Your task to perform on an android device: turn off smart reply in the gmail app Image 0: 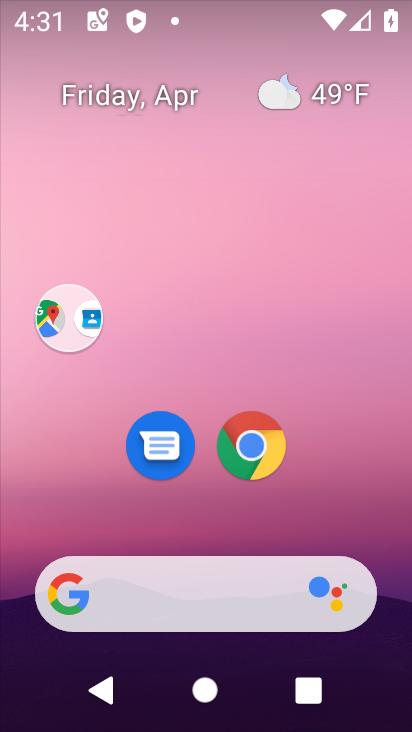
Step 0: drag from (327, 516) to (289, 89)
Your task to perform on an android device: turn off smart reply in the gmail app Image 1: 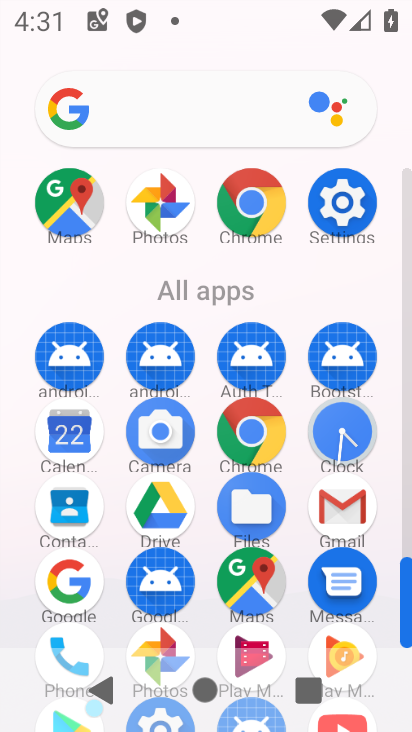
Step 1: click (341, 514)
Your task to perform on an android device: turn off smart reply in the gmail app Image 2: 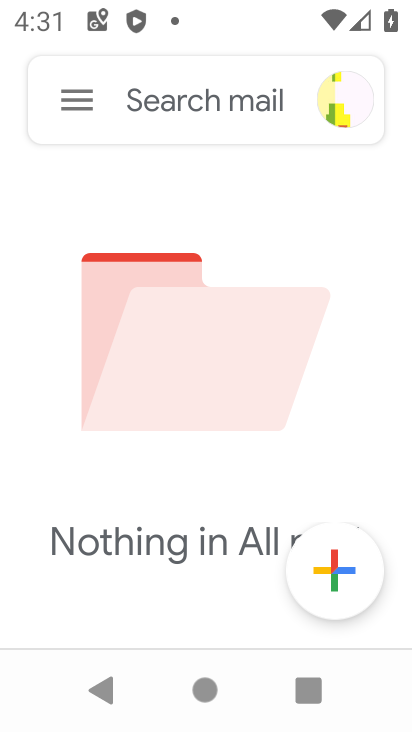
Step 2: click (67, 112)
Your task to perform on an android device: turn off smart reply in the gmail app Image 3: 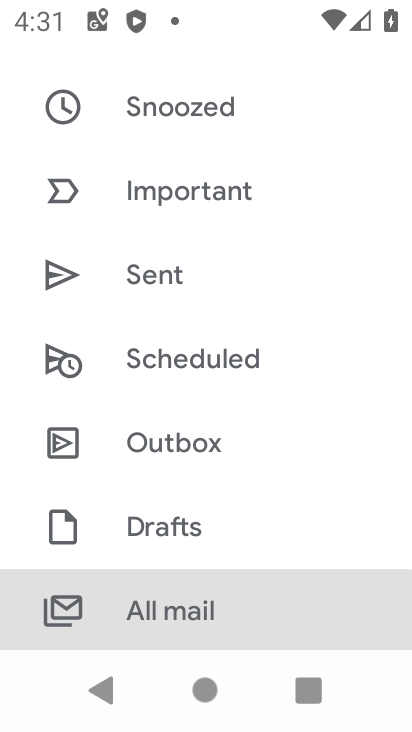
Step 3: drag from (151, 518) to (219, 132)
Your task to perform on an android device: turn off smart reply in the gmail app Image 4: 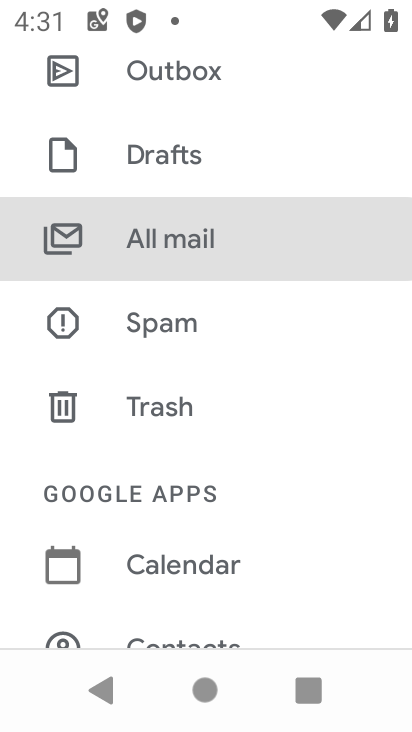
Step 4: drag from (169, 519) to (255, 246)
Your task to perform on an android device: turn off smart reply in the gmail app Image 5: 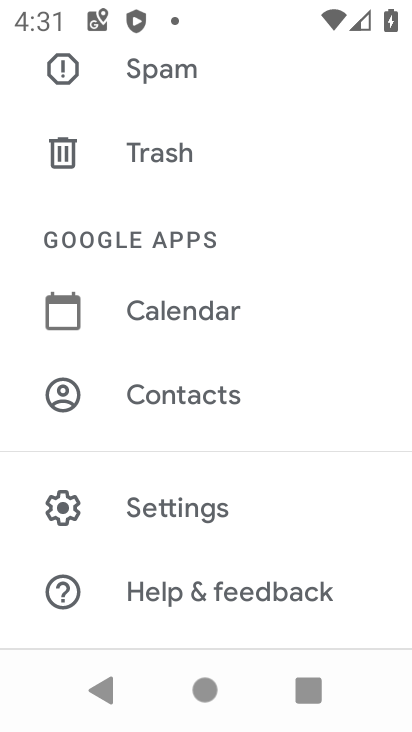
Step 5: click (163, 515)
Your task to perform on an android device: turn off smart reply in the gmail app Image 6: 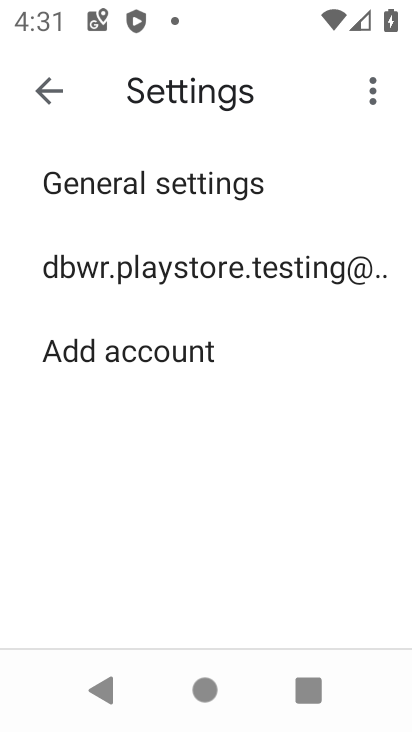
Step 6: click (143, 280)
Your task to perform on an android device: turn off smart reply in the gmail app Image 7: 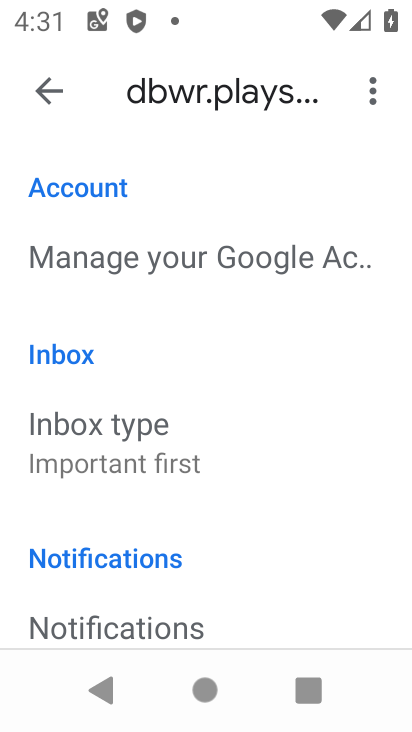
Step 7: drag from (174, 549) to (222, 121)
Your task to perform on an android device: turn off smart reply in the gmail app Image 8: 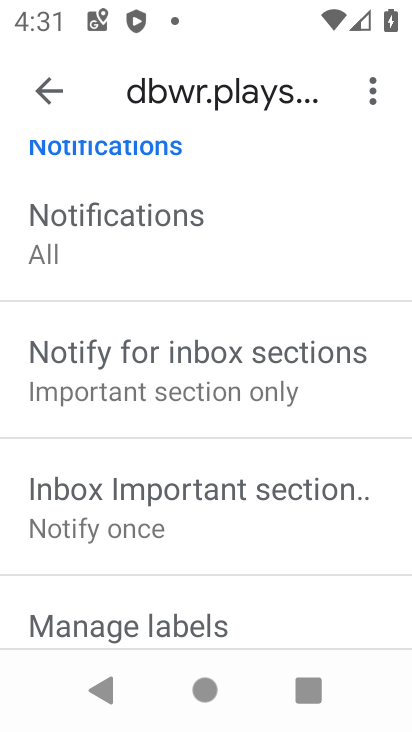
Step 8: drag from (195, 495) to (292, 145)
Your task to perform on an android device: turn off smart reply in the gmail app Image 9: 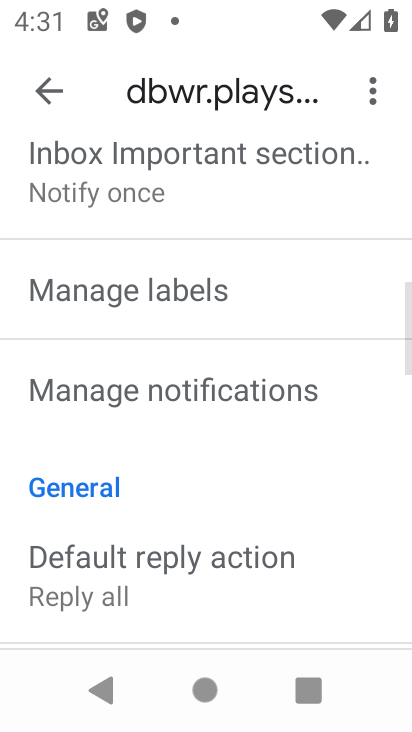
Step 9: drag from (204, 507) to (295, 122)
Your task to perform on an android device: turn off smart reply in the gmail app Image 10: 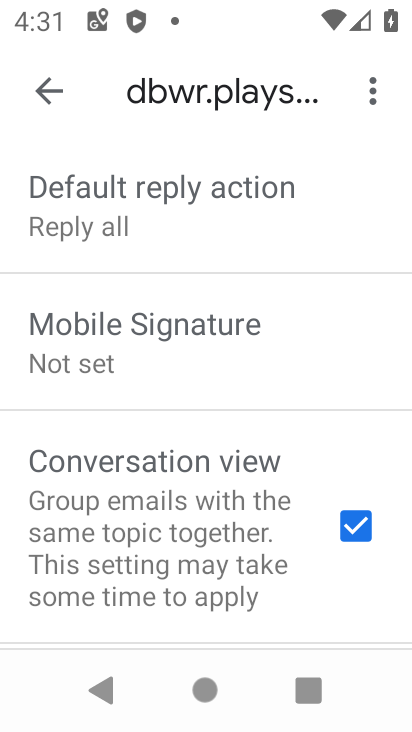
Step 10: drag from (209, 460) to (313, 136)
Your task to perform on an android device: turn off smart reply in the gmail app Image 11: 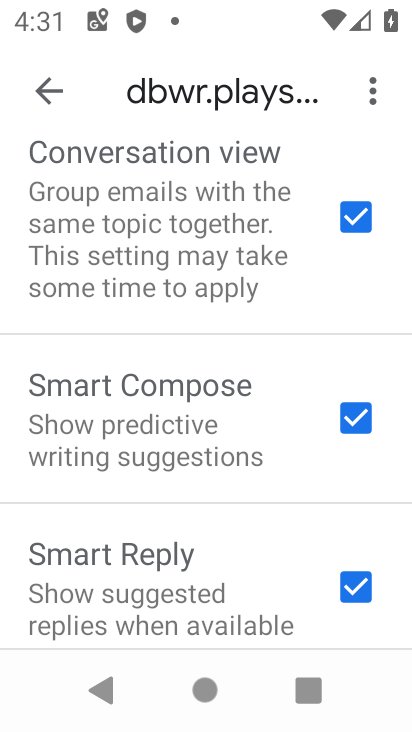
Step 11: click (352, 588)
Your task to perform on an android device: turn off smart reply in the gmail app Image 12: 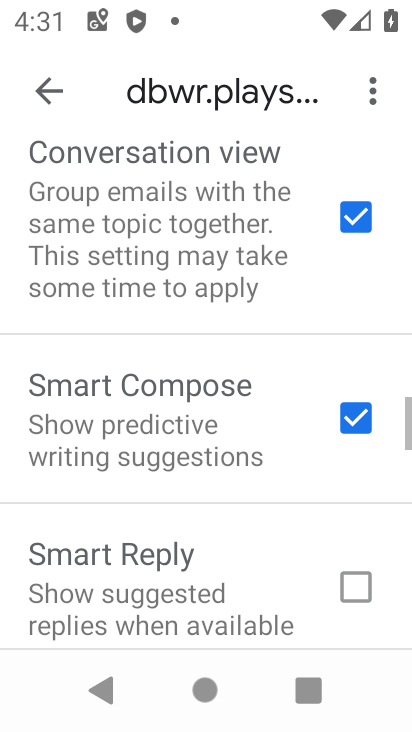
Step 12: task complete